Your task to perform on an android device: change the clock display to show seconds Image 0: 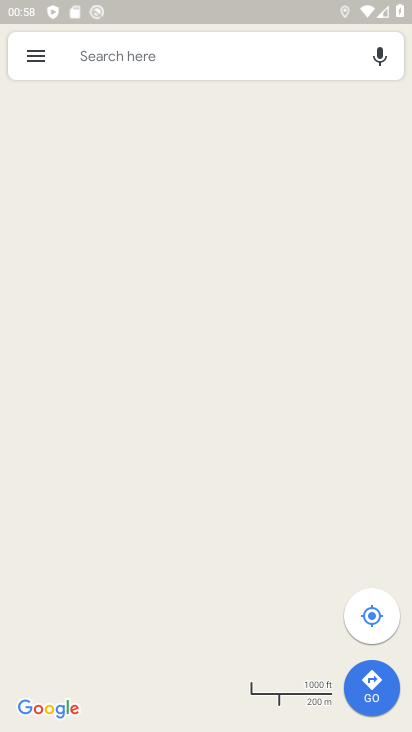
Step 0: drag from (231, 473) to (231, 144)
Your task to perform on an android device: change the clock display to show seconds Image 1: 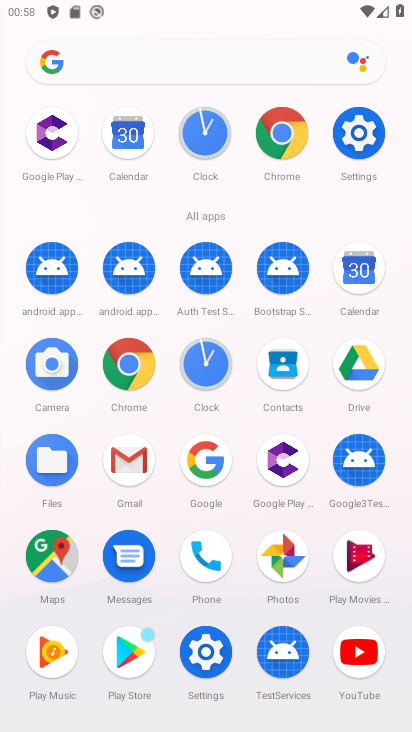
Step 1: click (208, 370)
Your task to perform on an android device: change the clock display to show seconds Image 2: 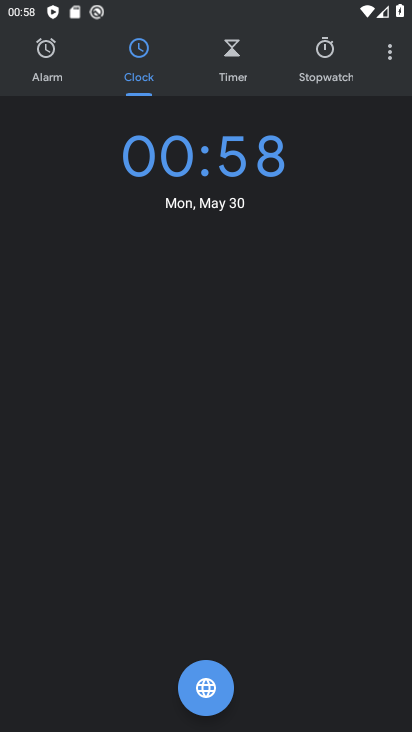
Step 2: click (387, 61)
Your task to perform on an android device: change the clock display to show seconds Image 3: 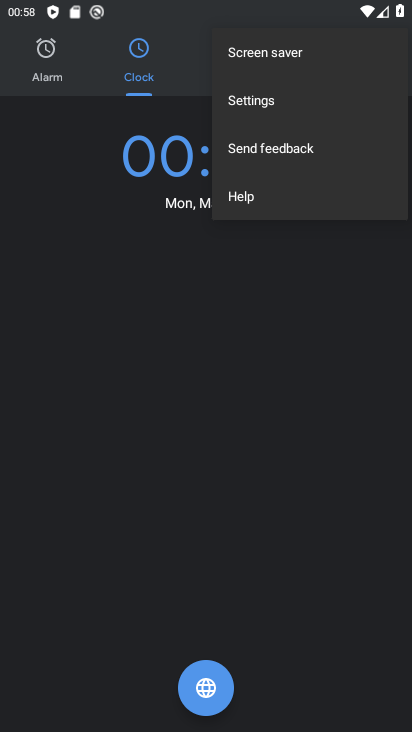
Step 3: click (269, 104)
Your task to perform on an android device: change the clock display to show seconds Image 4: 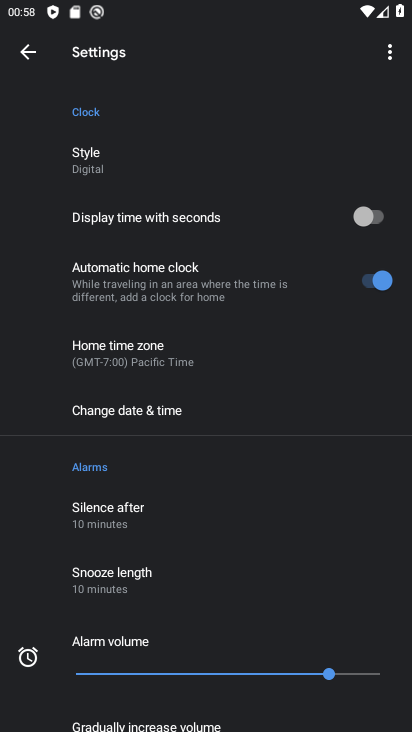
Step 4: click (351, 215)
Your task to perform on an android device: change the clock display to show seconds Image 5: 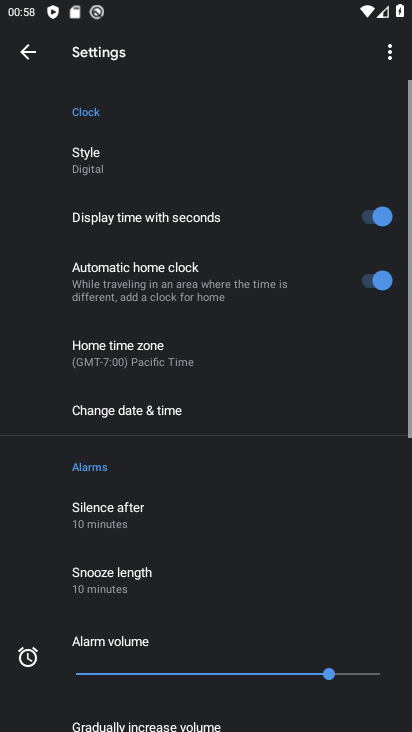
Step 5: task complete